Your task to perform on an android device: turn on location history Image 0: 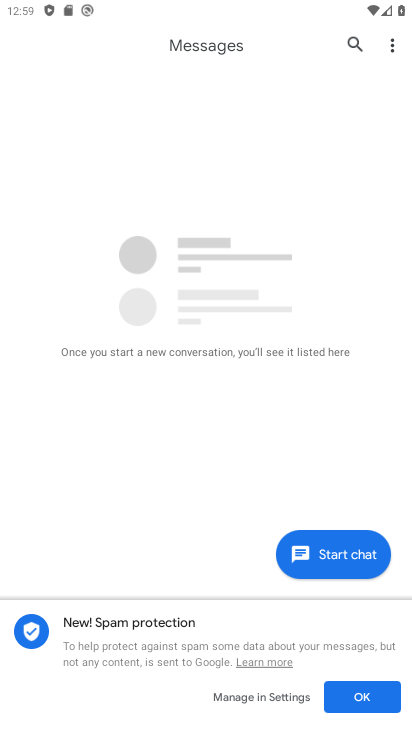
Step 0: press home button
Your task to perform on an android device: turn on location history Image 1: 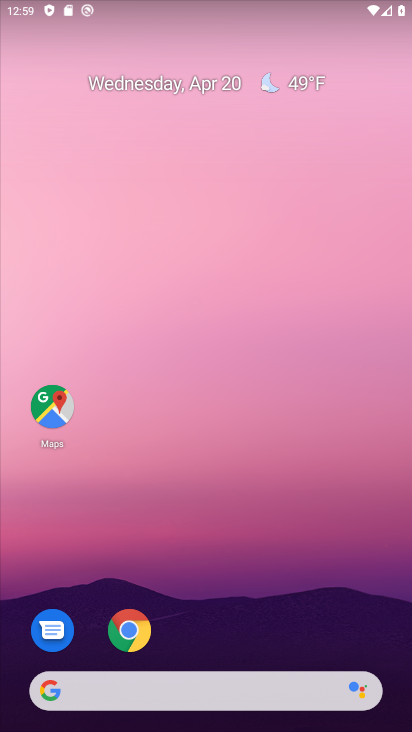
Step 1: drag from (328, 596) to (369, 166)
Your task to perform on an android device: turn on location history Image 2: 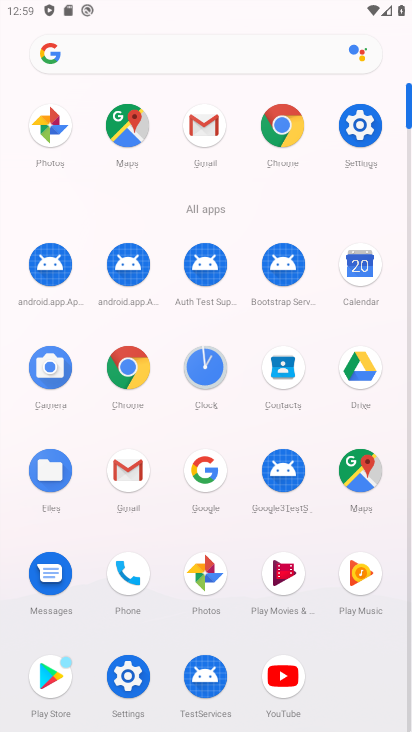
Step 2: click (360, 126)
Your task to perform on an android device: turn on location history Image 3: 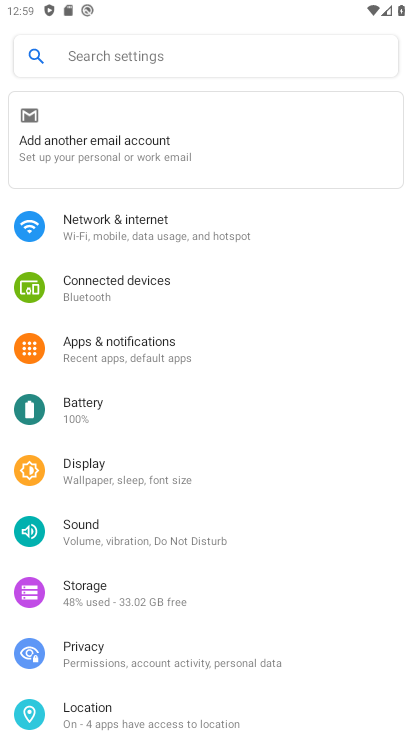
Step 3: click (134, 711)
Your task to perform on an android device: turn on location history Image 4: 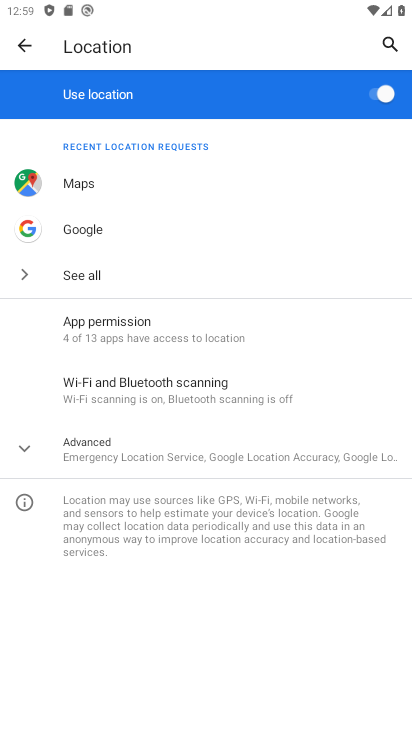
Step 4: click (15, 451)
Your task to perform on an android device: turn on location history Image 5: 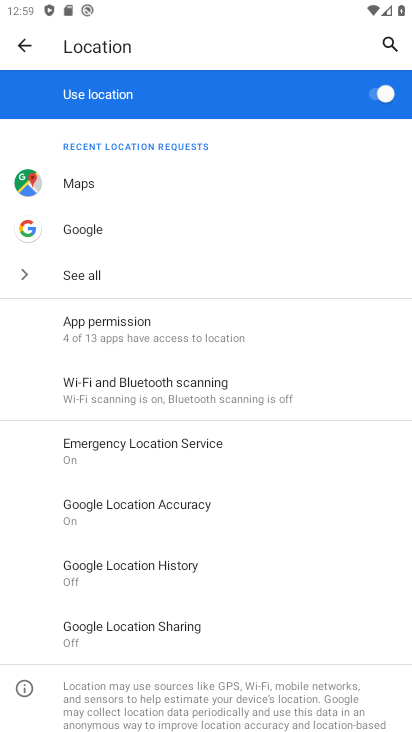
Step 5: click (180, 562)
Your task to perform on an android device: turn on location history Image 6: 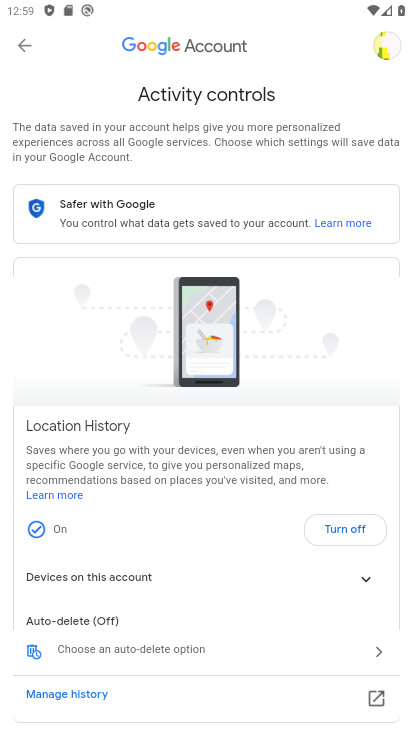
Step 6: task complete